Your task to perform on an android device: Search for Mexican restaurants on Maps Image 0: 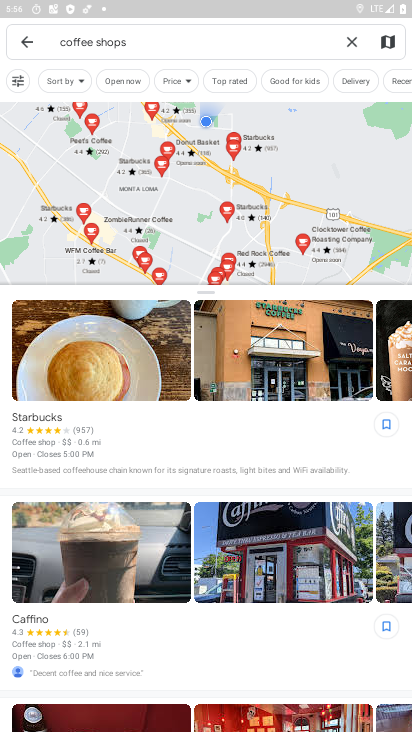
Step 0: press home button
Your task to perform on an android device: Search for Mexican restaurants on Maps Image 1: 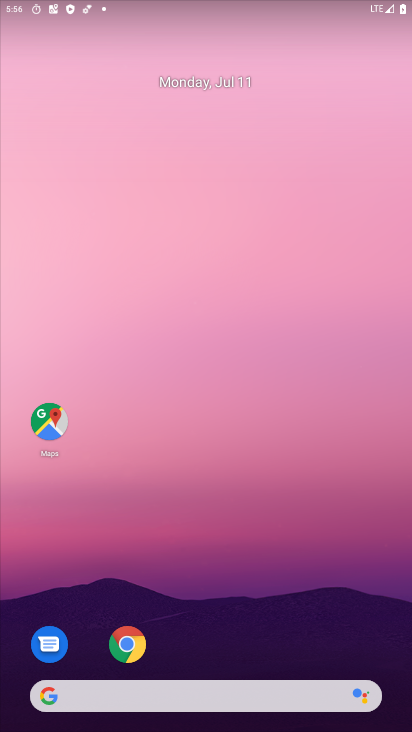
Step 1: drag from (173, 681) to (258, 19)
Your task to perform on an android device: Search for Mexican restaurants on Maps Image 2: 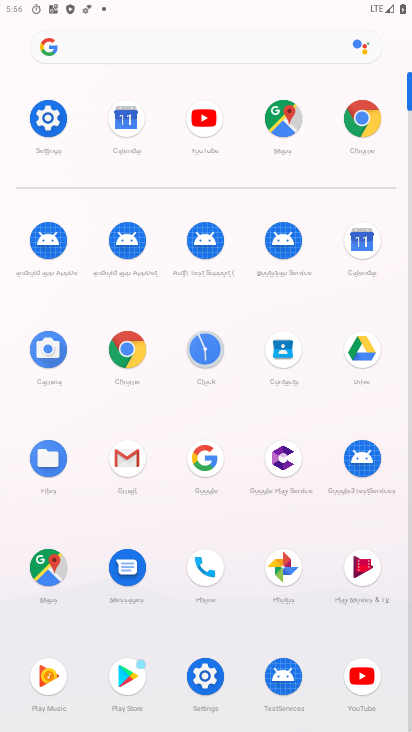
Step 2: click (58, 561)
Your task to perform on an android device: Search for Mexican restaurants on Maps Image 3: 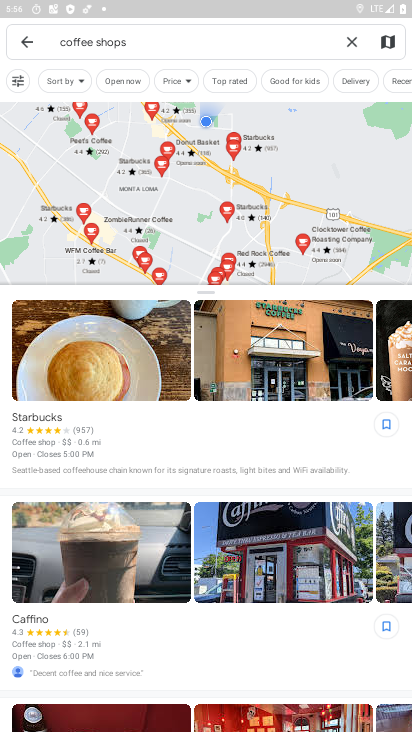
Step 3: press back button
Your task to perform on an android device: Search for Mexican restaurants on Maps Image 4: 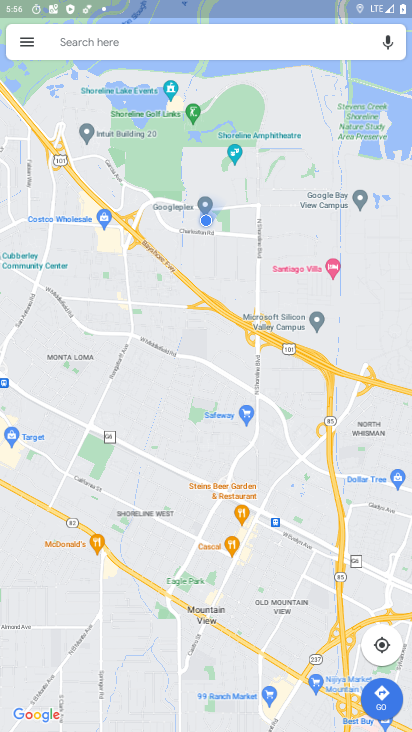
Step 4: click (315, 49)
Your task to perform on an android device: Search for Mexican restaurants on Maps Image 5: 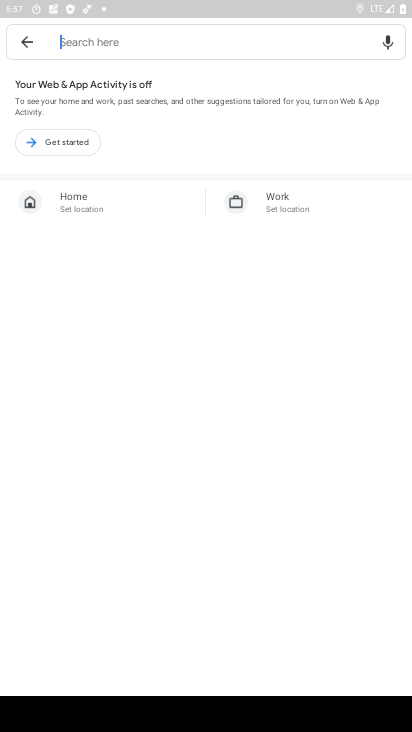
Step 5: type "Mexican restaurant"
Your task to perform on an android device: Search for Mexican restaurants on Maps Image 6: 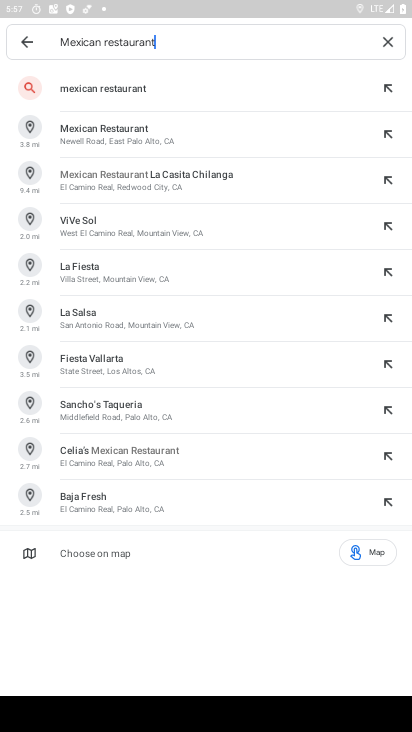
Step 6: click (344, 95)
Your task to perform on an android device: Search for Mexican restaurants on Maps Image 7: 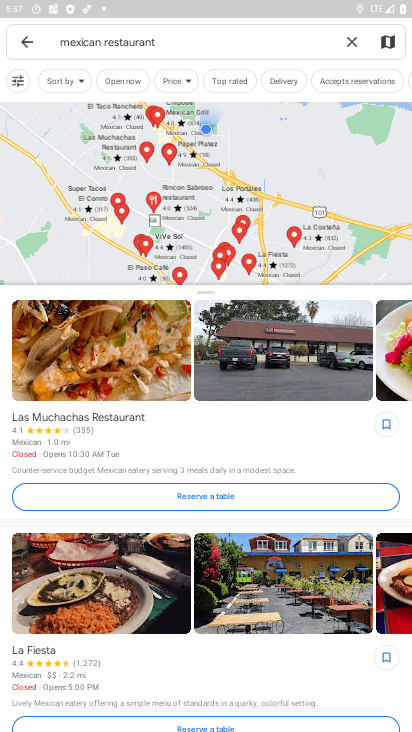
Step 7: task complete